Your task to perform on an android device: find photos in the google photos app Image 0: 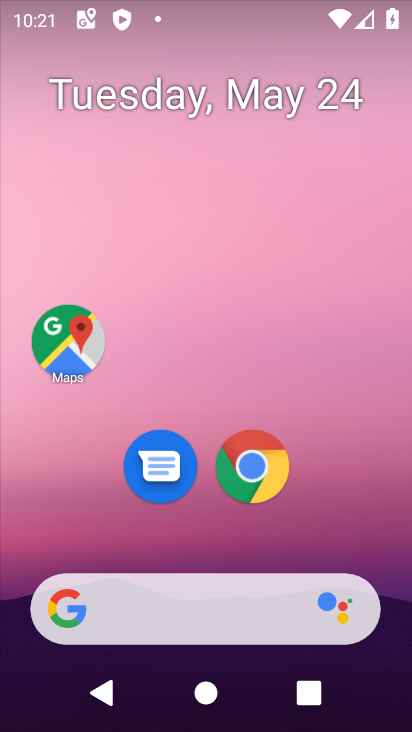
Step 0: drag from (386, 551) to (362, 158)
Your task to perform on an android device: find photos in the google photos app Image 1: 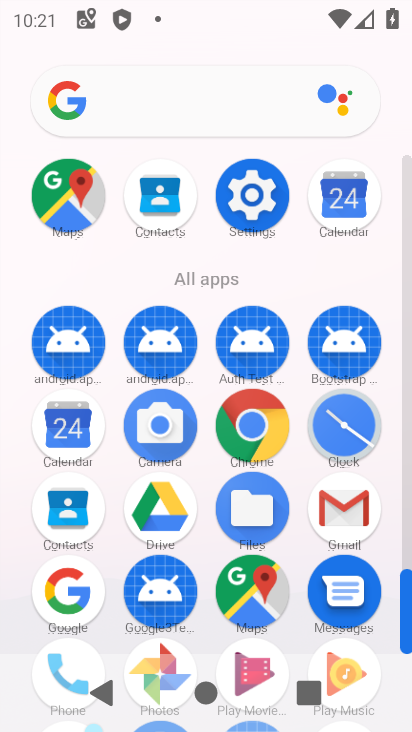
Step 1: drag from (389, 542) to (398, 228)
Your task to perform on an android device: find photos in the google photos app Image 2: 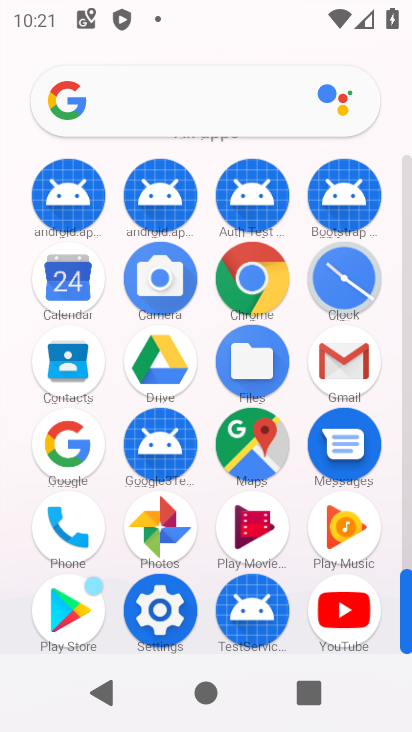
Step 2: click (177, 520)
Your task to perform on an android device: find photos in the google photos app Image 3: 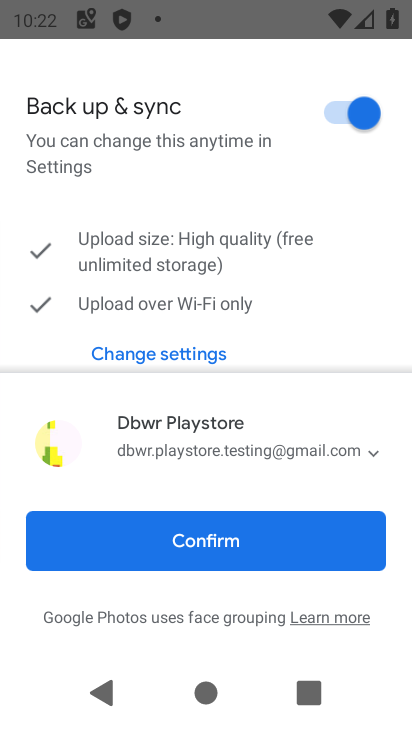
Step 3: click (202, 549)
Your task to perform on an android device: find photos in the google photos app Image 4: 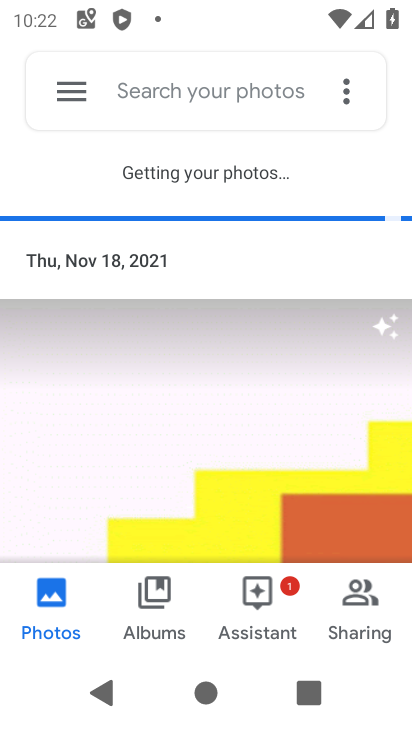
Step 4: click (221, 438)
Your task to perform on an android device: find photos in the google photos app Image 5: 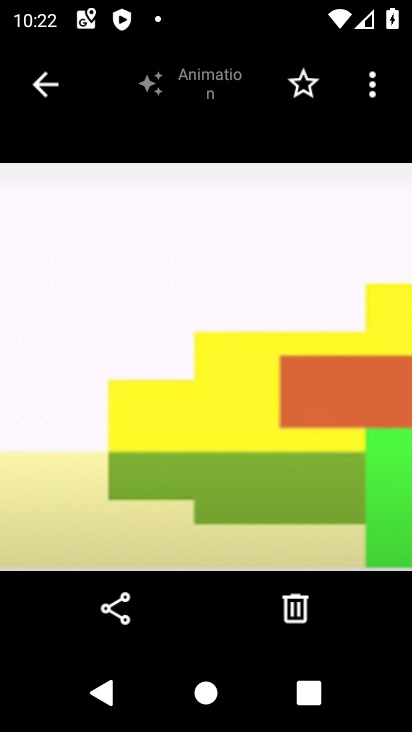
Step 5: task complete